Your task to perform on an android device: Go to wifi settings Image 0: 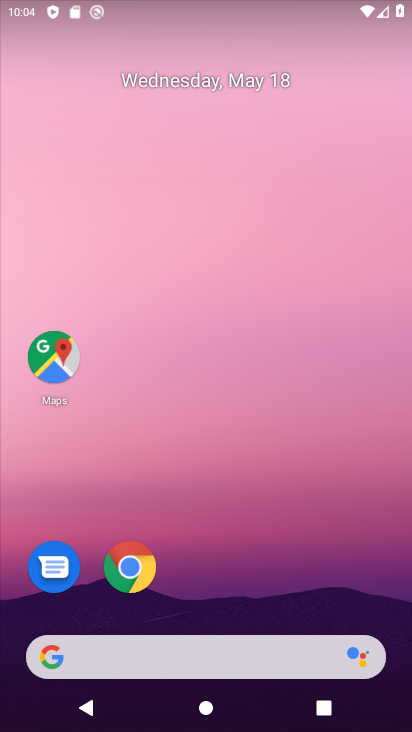
Step 0: drag from (274, 674) to (332, 161)
Your task to perform on an android device: Go to wifi settings Image 1: 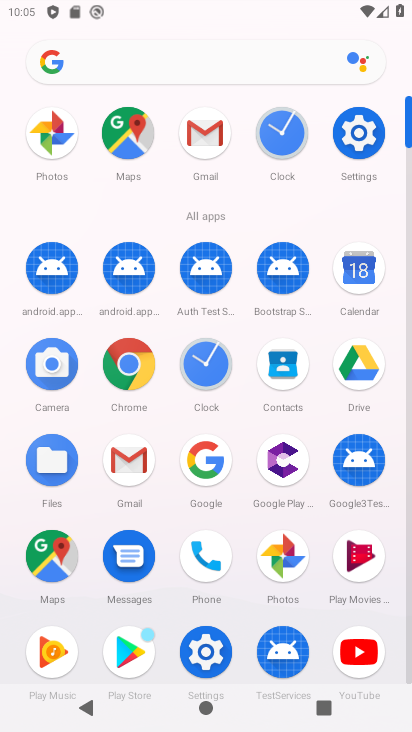
Step 1: click (351, 140)
Your task to perform on an android device: Go to wifi settings Image 2: 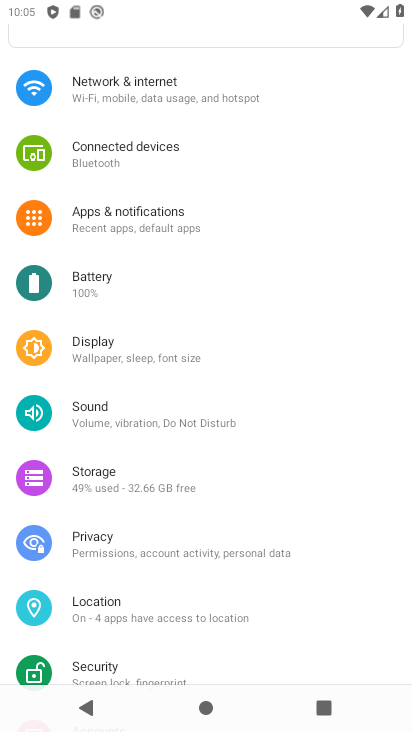
Step 2: click (177, 79)
Your task to perform on an android device: Go to wifi settings Image 3: 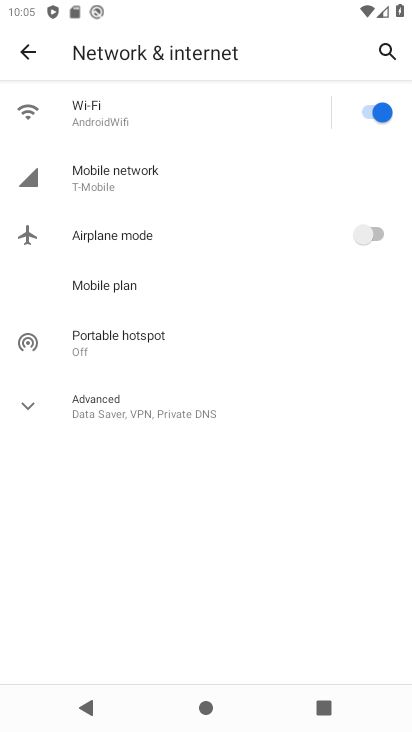
Step 3: task complete